Your task to perform on an android device: Go to Reddit.com Image 0: 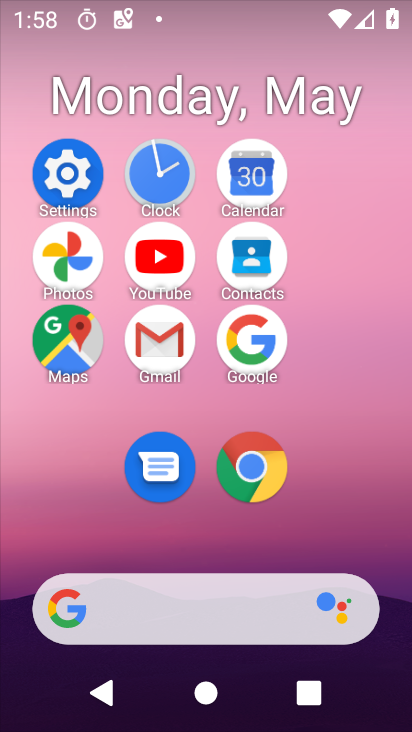
Step 0: click (286, 465)
Your task to perform on an android device: Go to Reddit.com Image 1: 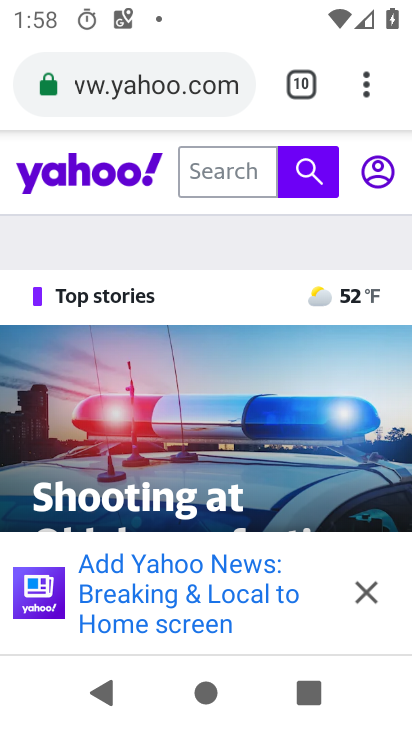
Step 1: click (300, 85)
Your task to perform on an android device: Go to Reddit.com Image 2: 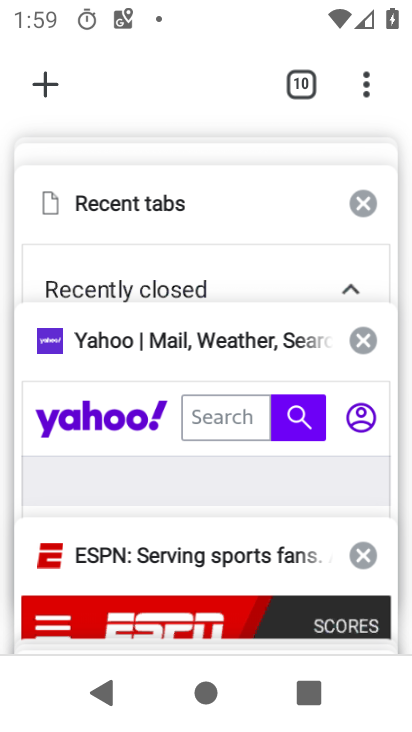
Step 2: drag from (222, 206) to (233, 495)
Your task to perform on an android device: Go to Reddit.com Image 3: 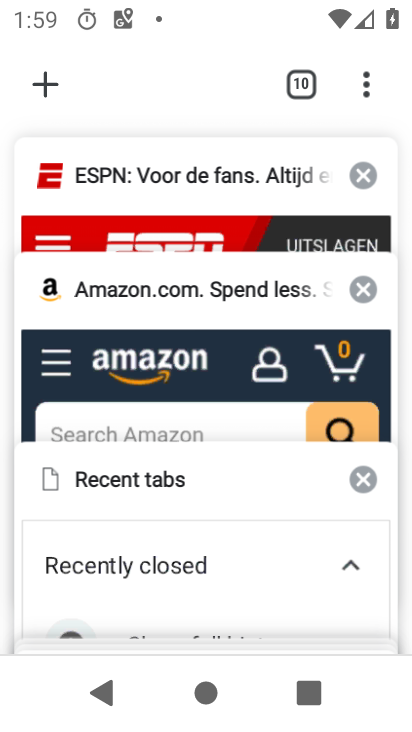
Step 3: drag from (212, 183) to (241, 511)
Your task to perform on an android device: Go to Reddit.com Image 4: 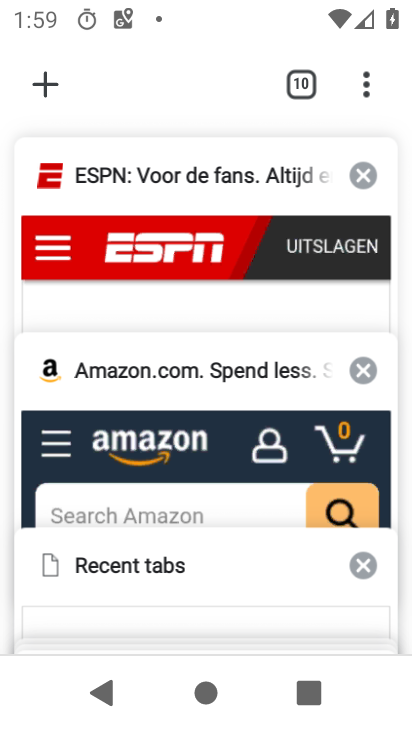
Step 4: drag from (192, 421) to (199, 101)
Your task to perform on an android device: Go to Reddit.com Image 5: 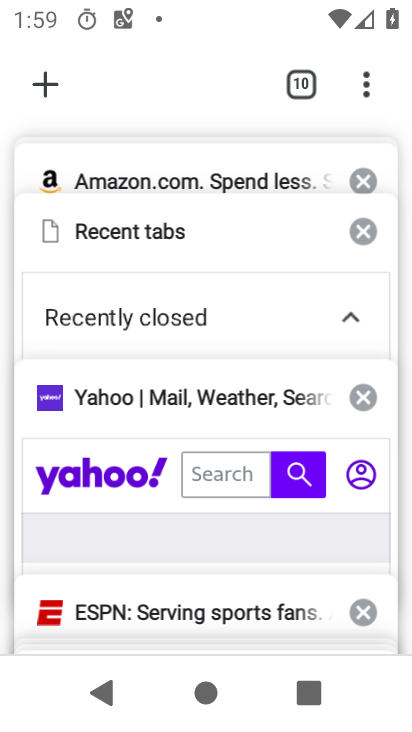
Step 5: drag from (174, 422) to (198, 98)
Your task to perform on an android device: Go to Reddit.com Image 6: 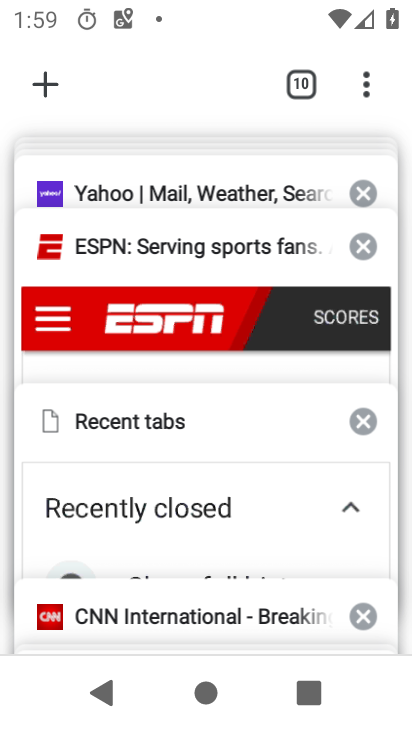
Step 6: drag from (201, 443) to (199, 131)
Your task to perform on an android device: Go to Reddit.com Image 7: 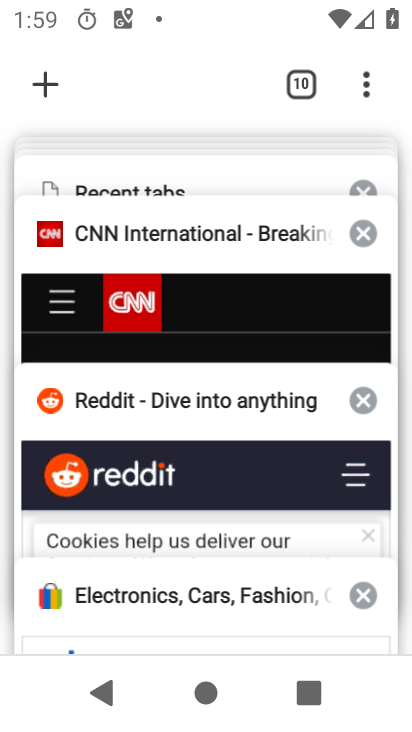
Step 7: click (188, 409)
Your task to perform on an android device: Go to Reddit.com Image 8: 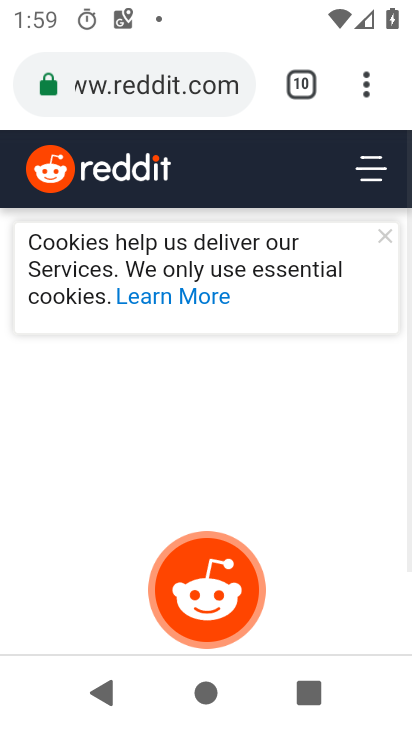
Step 8: task complete